Your task to perform on an android device: turn on bluetooth scan Image 0: 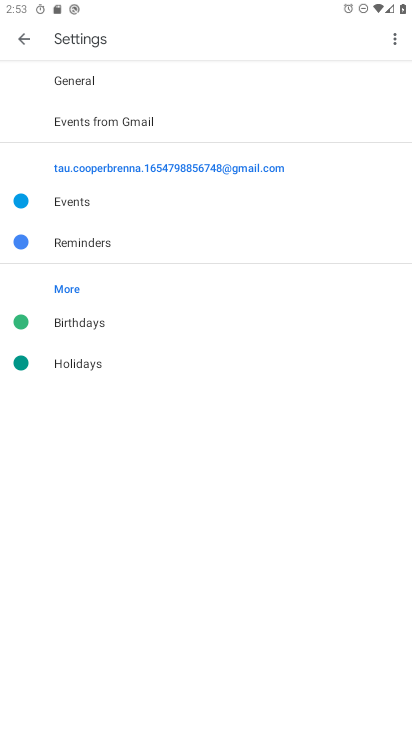
Step 0: drag from (212, 510) to (289, 310)
Your task to perform on an android device: turn on bluetooth scan Image 1: 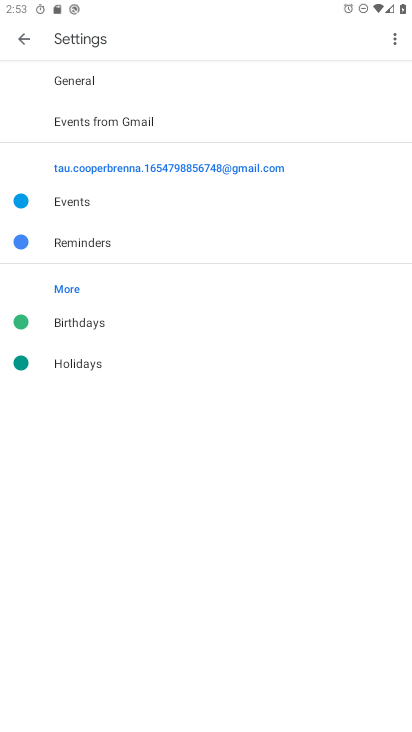
Step 1: press home button
Your task to perform on an android device: turn on bluetooth scan Image 2: 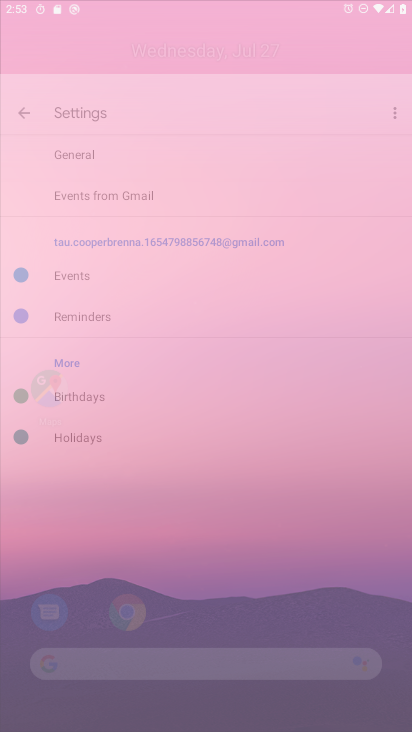
Step 2: drag from (145, 610) to (174, 319)
Your task to perform on an android device: turn on bluetooth scan Image 3: 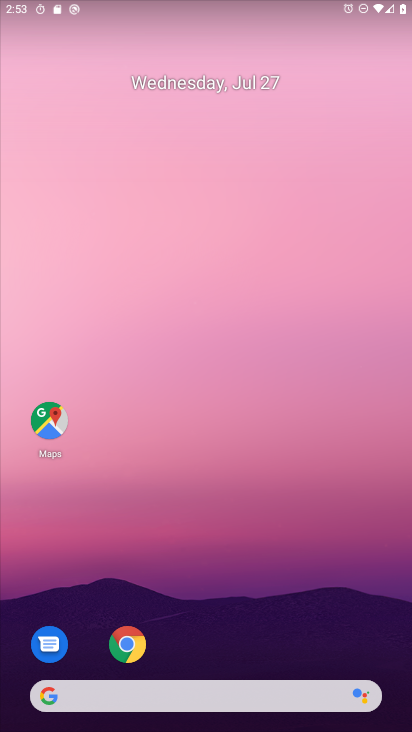
Step 3: drag from (179, 589) to (188, 209)
Your task to perform on an android device: turn on bluetooth scan Image 4: 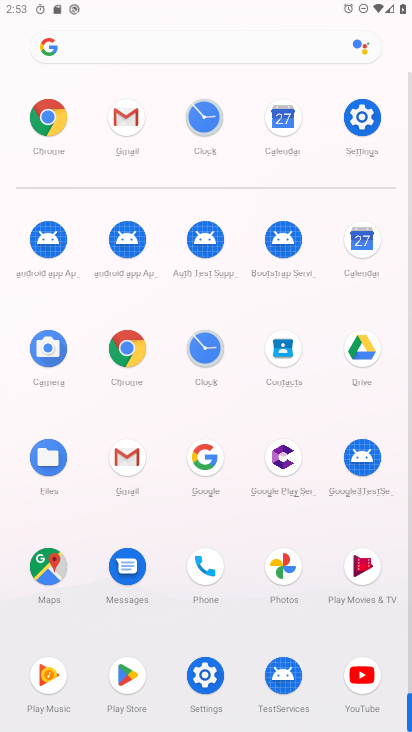
Step 4: click (204, 679)
Your task to perform on an android device: turn on bluetooth scan Image 5: 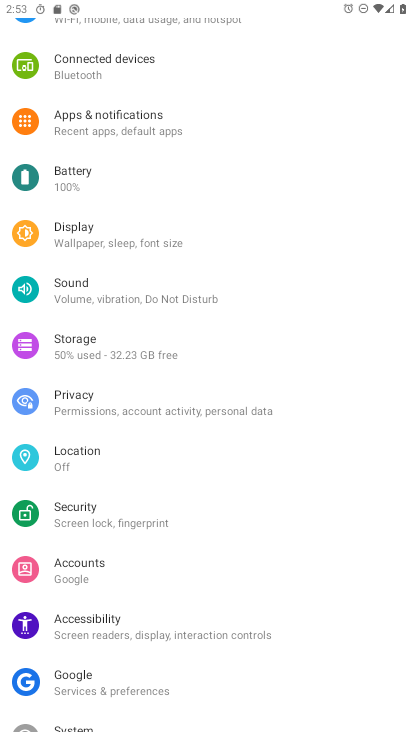
Step 5: drag from (152, 152) to (178, 631)
Your task to perform on an android device: turn on bluetooth scan Image 6: 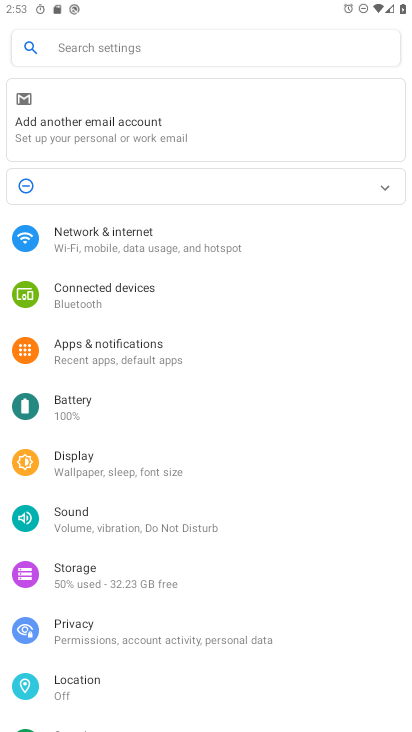
Step 6: drag from (141, 637) to (189, 259)
Your task to perform on an android device: turn on bluetooth scan Image 7: 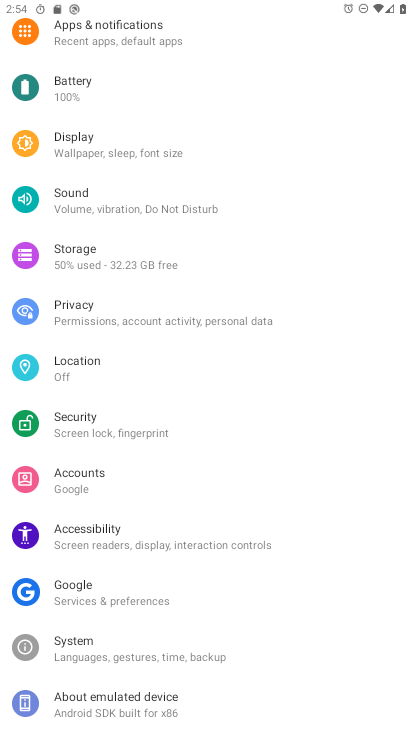
Step 7: click (102, 372)
Your task to perform on an android device: turn on bluetooth scan Image 8: 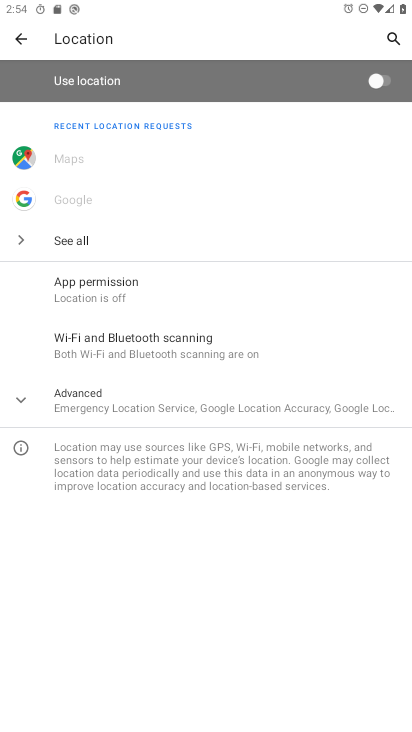
Step 8: click (191, 349)
Your task to perform on an android device: turn on bluetooth scan Image 9: 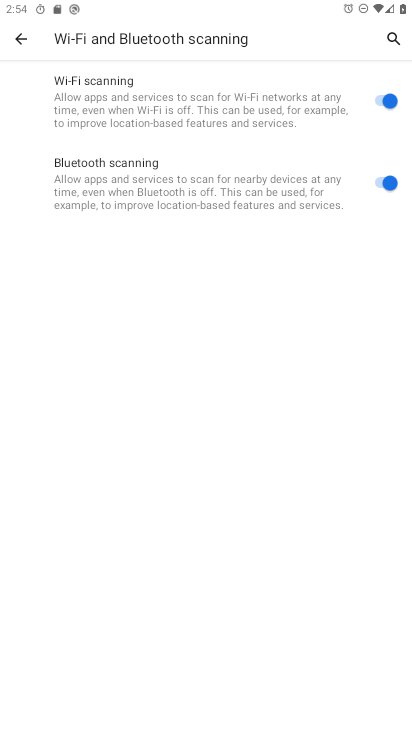
Step 9: task complete